Your task to perform on an android device: change text size in settings app Image 0: 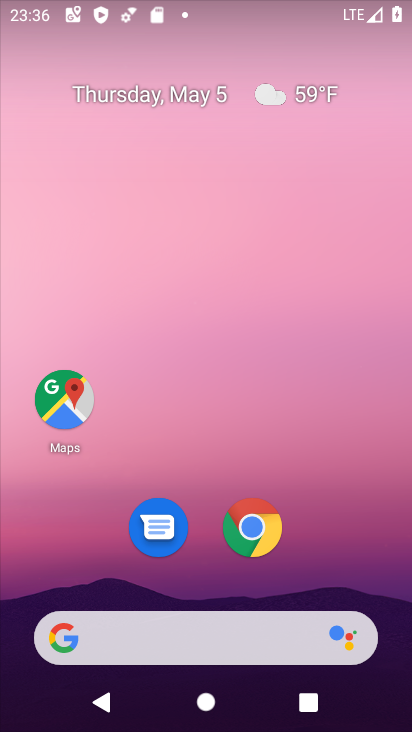
Step 0: drag from (242, 591) to (269, 69)
Your task to perform on an android device: change text size in settings app Image 1: 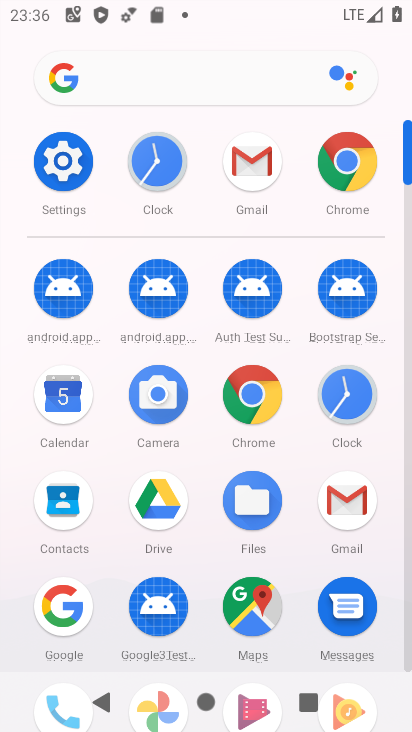
Step 1: click (72, 176)
Your task to perform on an android device: change text size in settings app Image 2: 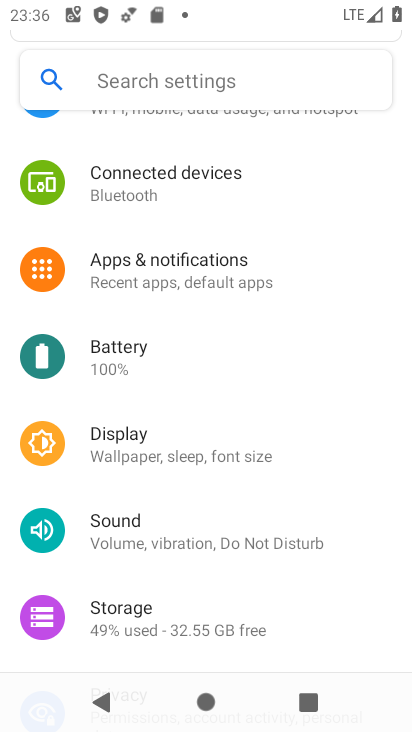
Step 2: click (147, 454)
Your task to perform on an android device: change text size in settings app Image 3: 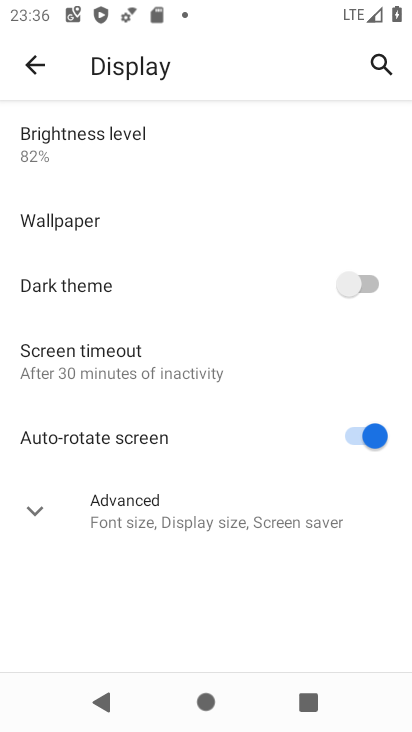
Step 3: click (52, 511)
Your task to perform on an android device: change text size in settings app Image 4: 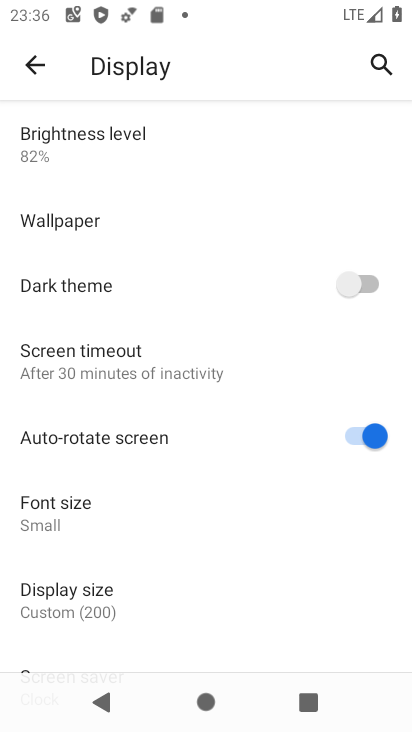
Step 4: click (79, 523)
Your task to perform on an android device: change text size in settings app Image 5: 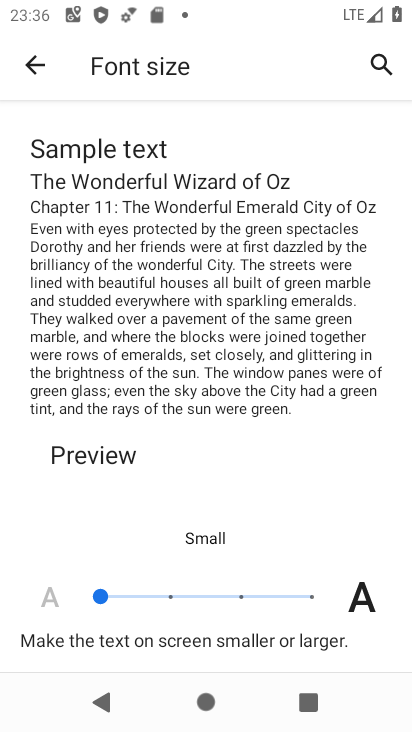
Step 5: click (179, 594)
Your task to perform on an android device: change text size in settings app Image 6: 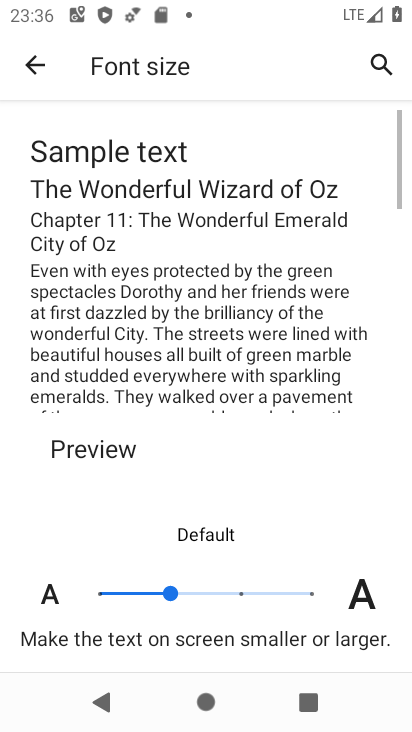
Step 6: task complete